Your task to perform on an android device: check battery use Image 0: 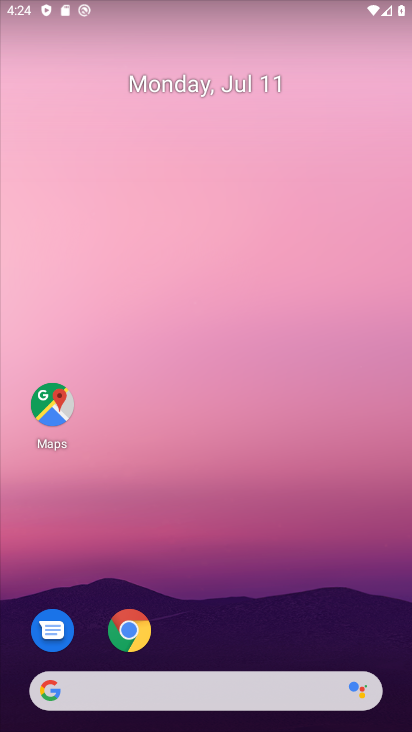
Step 0: drag from (241, 642) to (307, 77)
Your task to perform on an android device: check battery use Image 1: 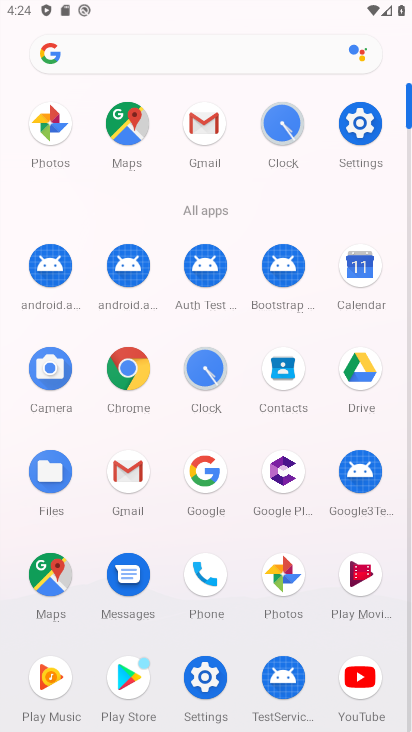
Step 1: click (202, 682)
Your task to perform on an android device: check battery use Image 2: 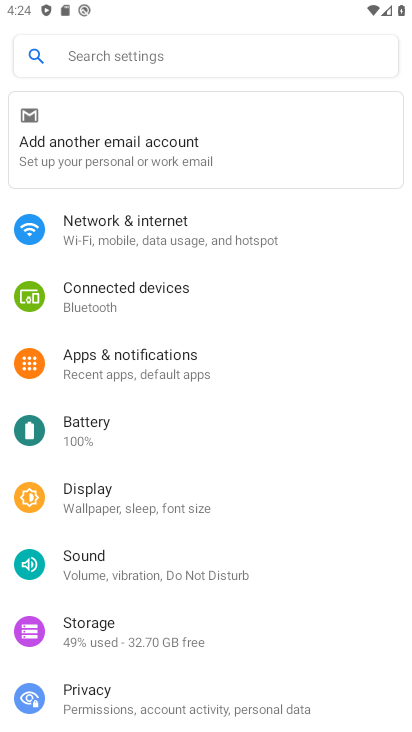
Step 2: click (145, 439)
Your task to perform on an android device: check battery use Image 3: 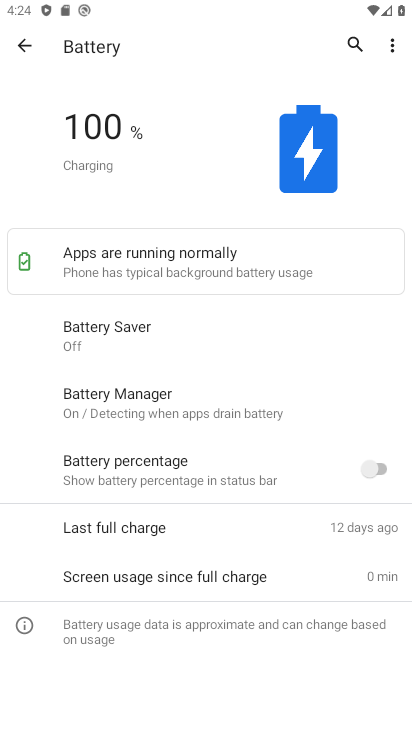
Step 3: click (398, 34)
Your task to perform on an android device: check battery use Image 4: 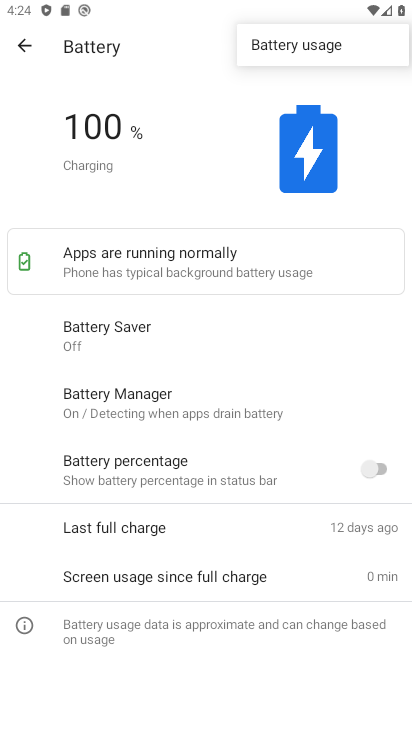
Step 4: click (362, 57)
Your task to perform on an android device: check battery use Image 5: 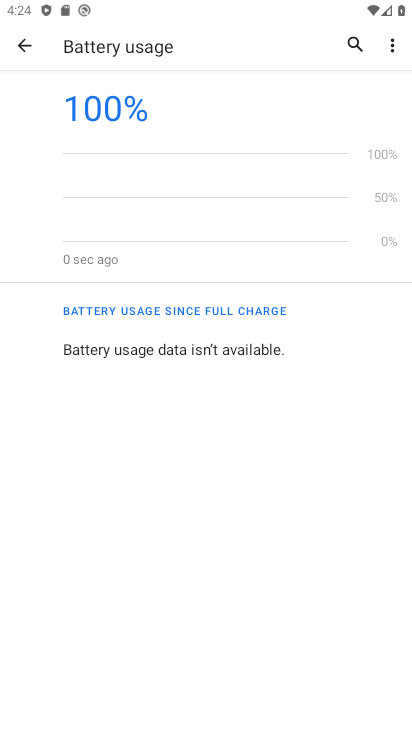
Step 5: task complete